Your task to perform on an android device: find snoozed emails in the gmail app Image 0: 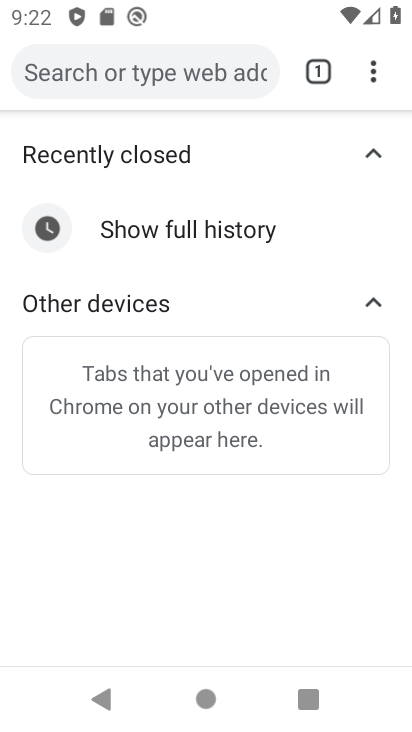
Step 0: press home button
Your task to perform on an android device: find snoozed emails in the gmail app Image 1: 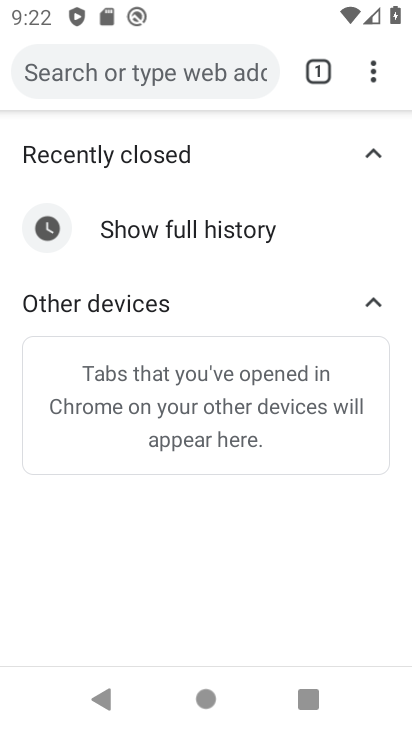
Step 1: press home button
Your task to perform on an android device: find snoozed emails in the gmail app Image 2: 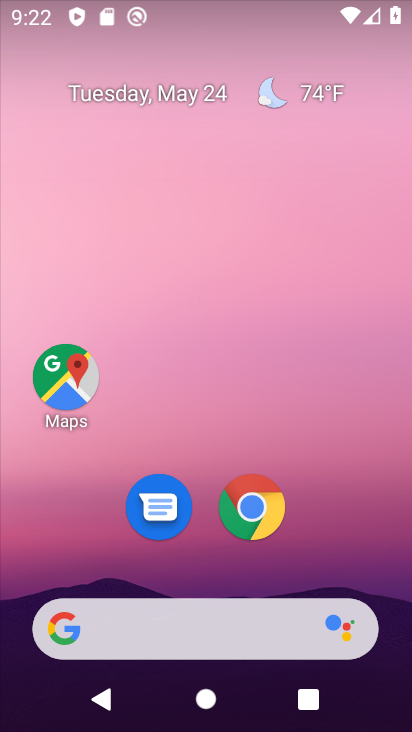
Step 2: drag from (227, 525) to (227, 198)
Your task to perform on an android device: find snoozed emails in the gmail app Image 3: 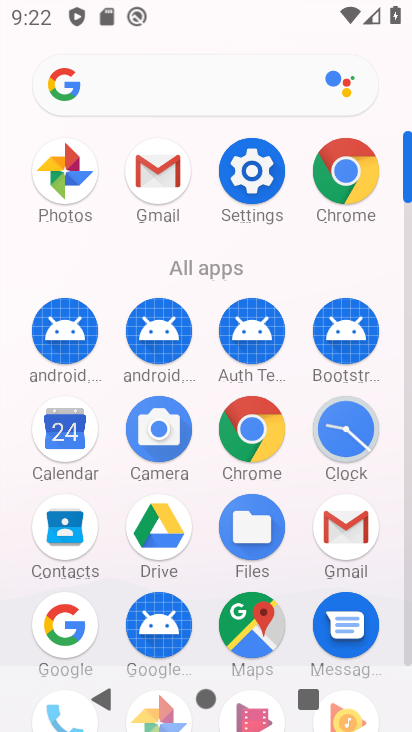
Step 3: click (340, 523)
Your task to perform on an android device: find snoozed emails in the gmail app Image 4: 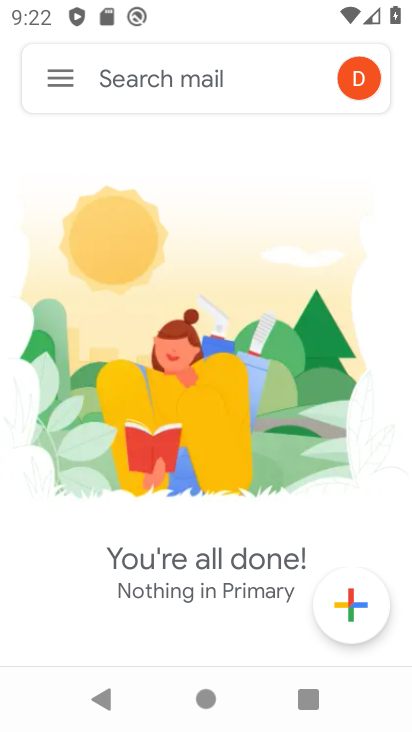
Step 4: click (57, 76)
Your task to perform on an android device: find snoozed emails in the gmail app Image 5: 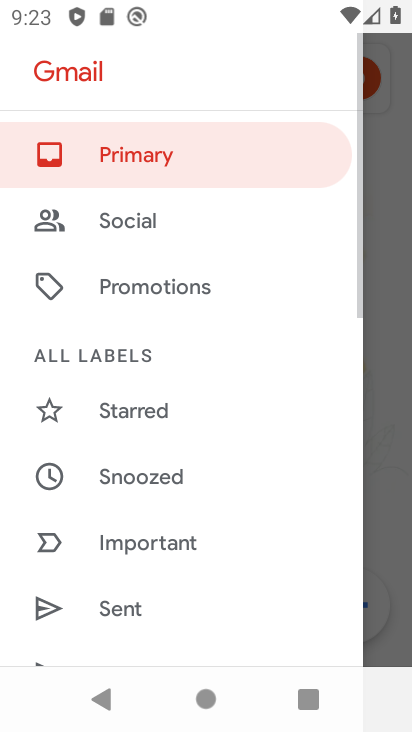
Step 5: click (149, 473)
Your task to perform on an android device: find snoozed emails in the gmail app Image 6: 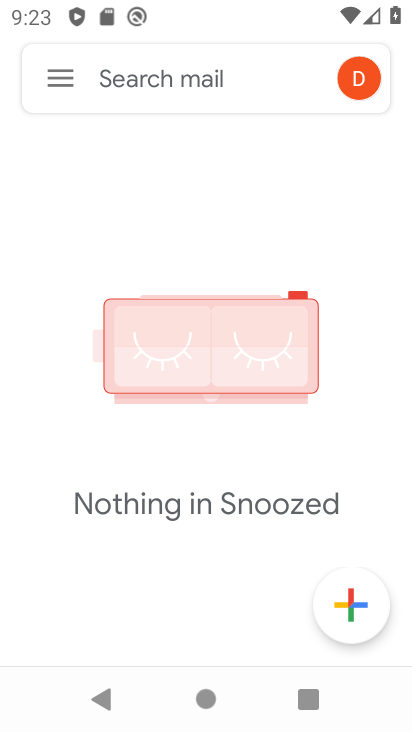
Step 6: task complete